Your task to perform on an android device: What's the weather going to be this weekend? Image 0: 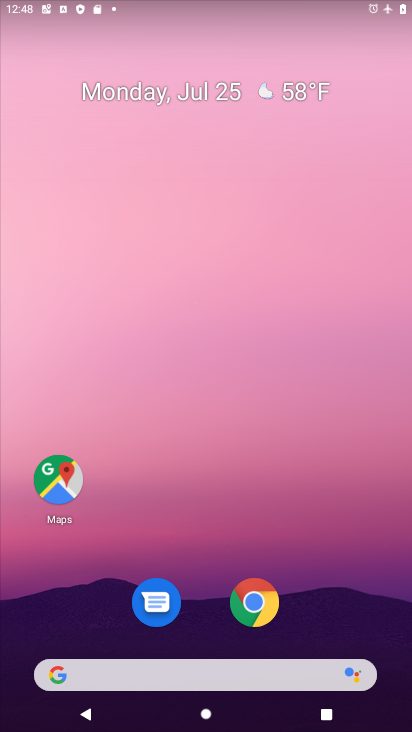
Step 0: drag from (212, 557) to (201, 1)
Your task to perform on an android device: What's the weather going to be this weekend? Image 1: 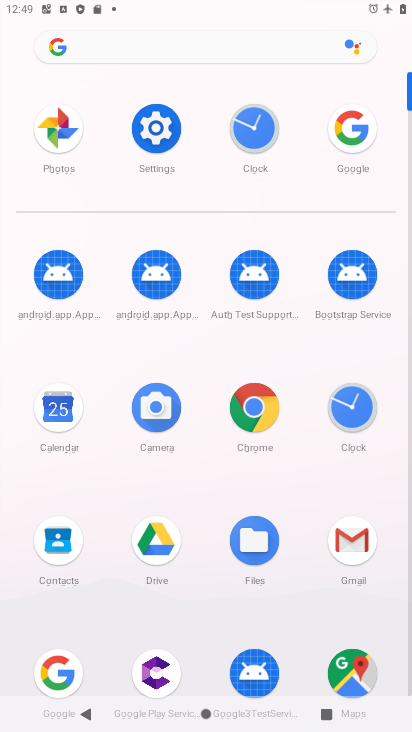
Step 1: click (51, 662)
Your task to perform on an android device: What's the weather going to be this weekend? Image 2: 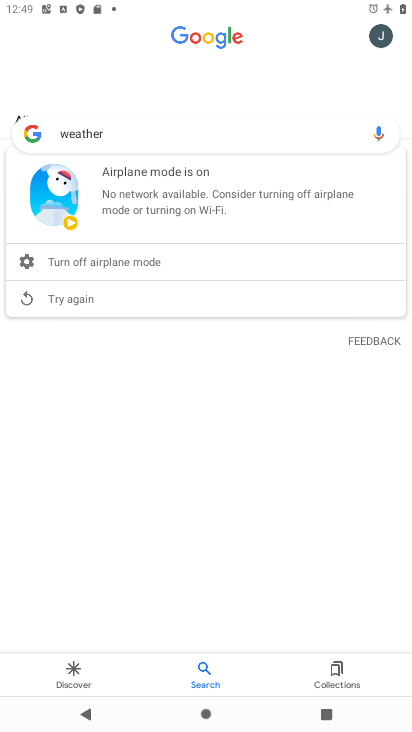
Step 2: task complete